Your task to perform on an android device: change the clock display to digital Image 0: 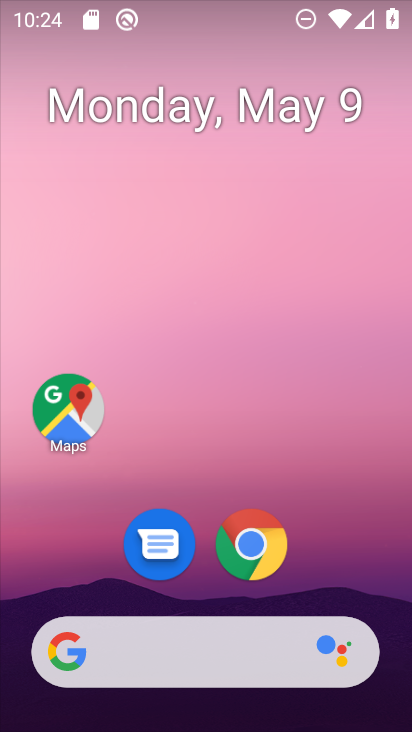
Step 0: drag from (311, 572) to (161, 18)
Your task to perform on an android device: change the clock display to digital Image 1: 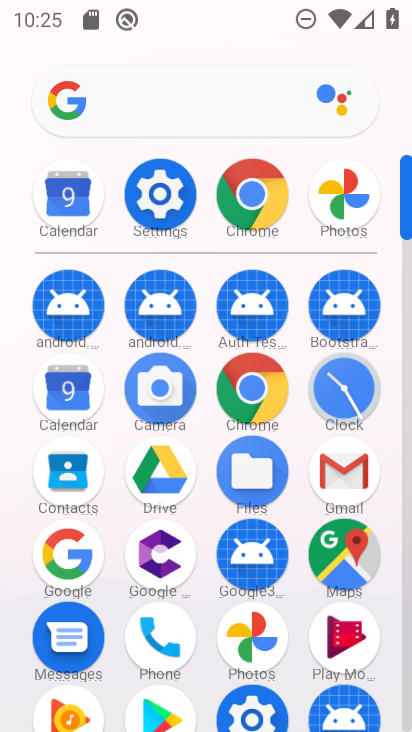
Step 1: click (341, 397)
Your task to perform on an android device: change the clock display to digital Image 2: 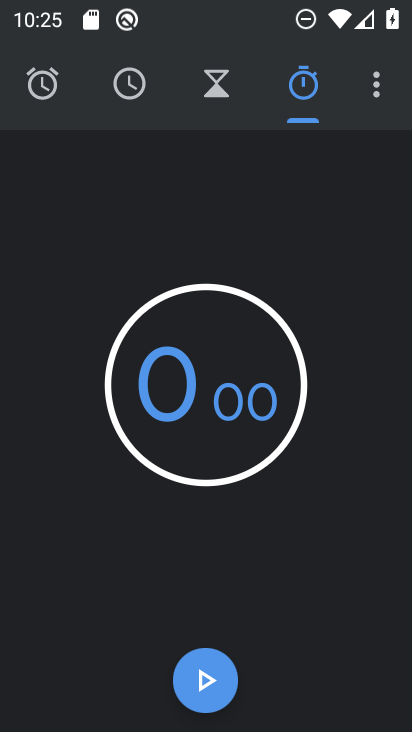
Step 2: click (376, 82)
Your task to perform on an android device: change the clock display to digital Image 3: 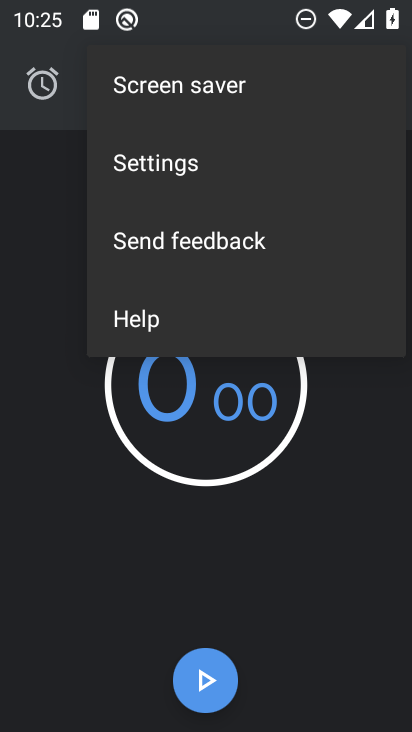
Step 3: click (179, 151)
Your task to perform on an android device: change the clock display to digital Image 4: 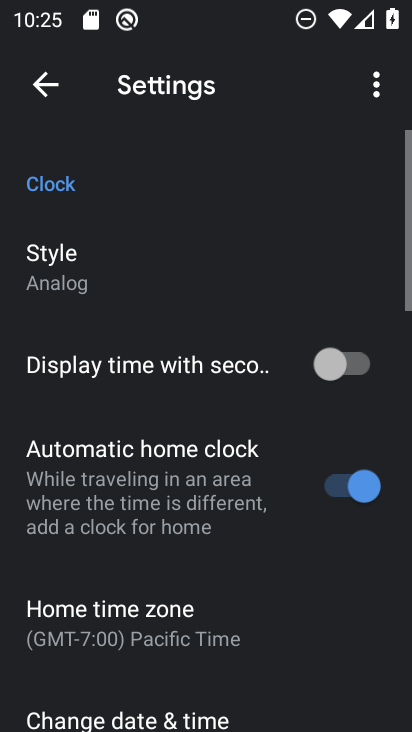
Step 4: click (66, 251)
Your task to perform on an android device: change the clock display to digital Image 5: 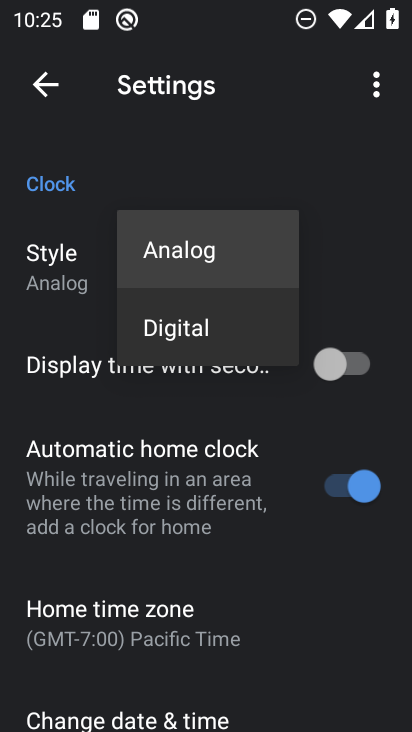
Step 5: click (169, 322)
Your task to perform on an android device: change the clock display to digital Image 6: 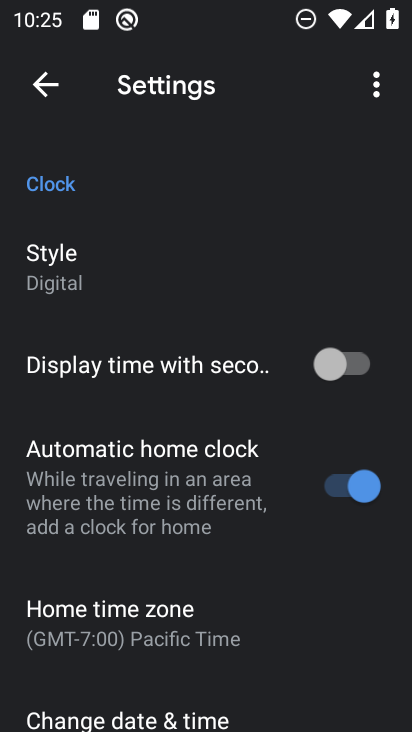
Step 6: task complete